Your task to perform on an android device: change keyboard looks Image 0: 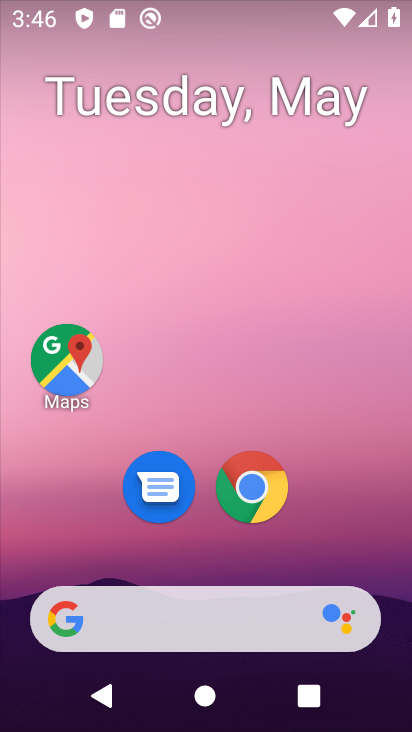
Step 0: drag from (189, 496) to (103, 6)
Your task to perform on an android device: change keyboard looks Image 1: 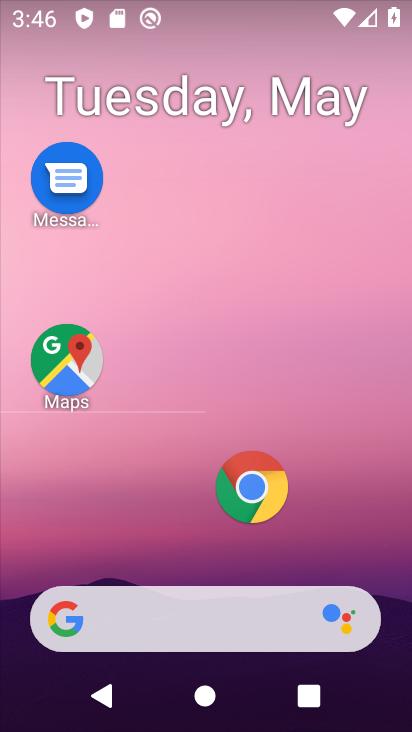
Step 1: drag from (169, 558) to (106, 0)
Your task to perform on an android device: change keyboard looks Image 2: 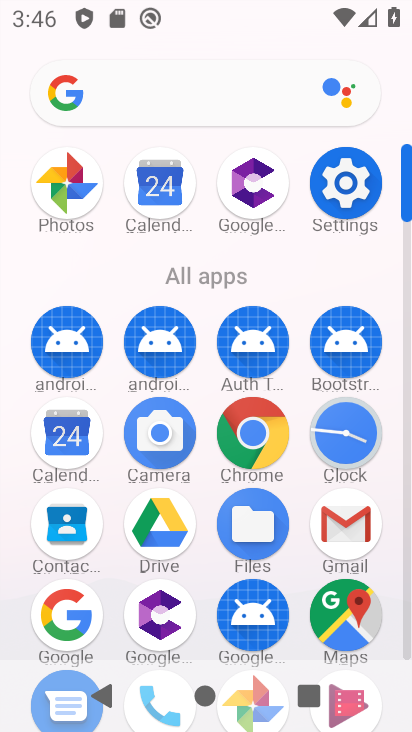
Step 2: click (354, 175)
Your task to perform on an android device: change keyboard looks Image 3: 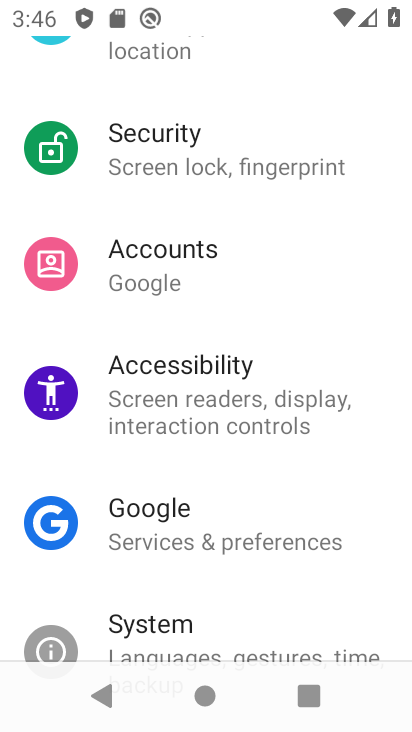
Step 3: drag from (193, 183) to (160, 714)
Your task to perform on an android device: change keyboard looks Image 4: 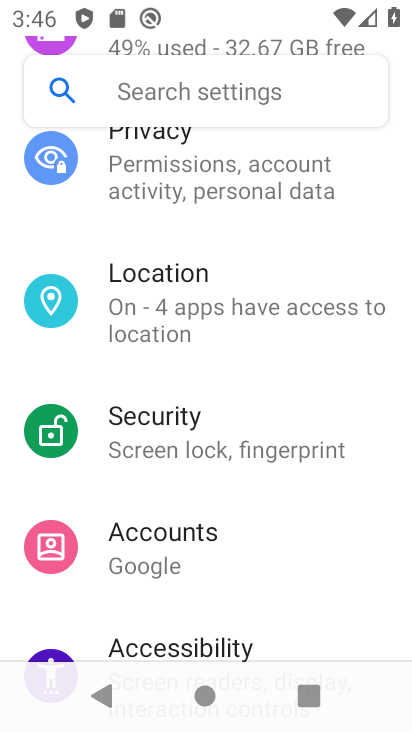
Step 4: drag from (201, 208) to (157, 687)
Your task to perform on an android device: change keyboard looks Image 5: 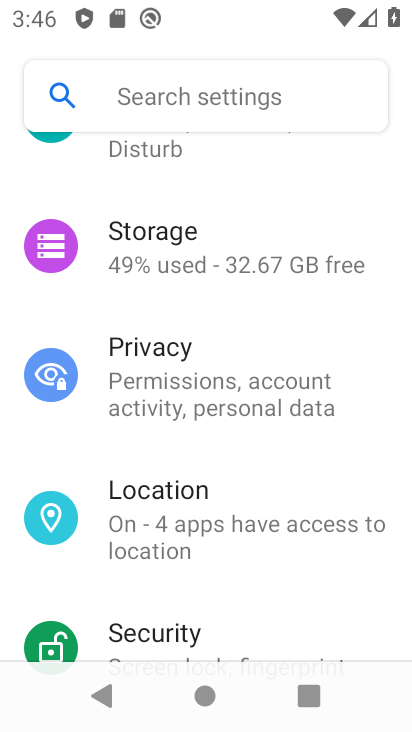
Step 5: click (216, 702)
Your task to perform on an android device: change keyboard looks Image 6: 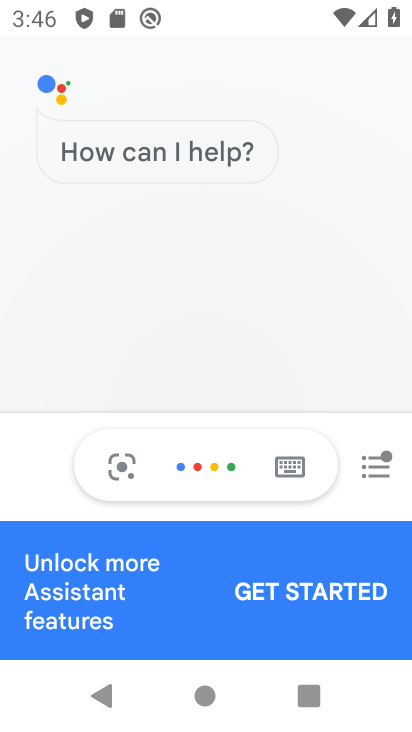
Step 6: press home button
Your task to perform on an android device: change keyboard looks Image 7: 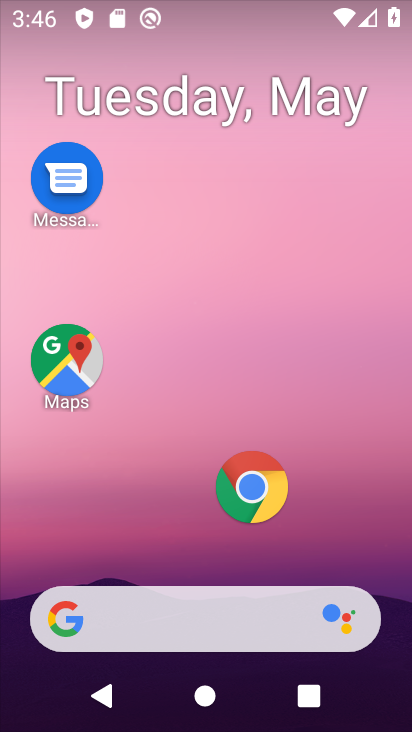
Step 7: drag from (281, 425) to (218, 115)
Your task to perform on an android device: change keyboard looks Image 8: 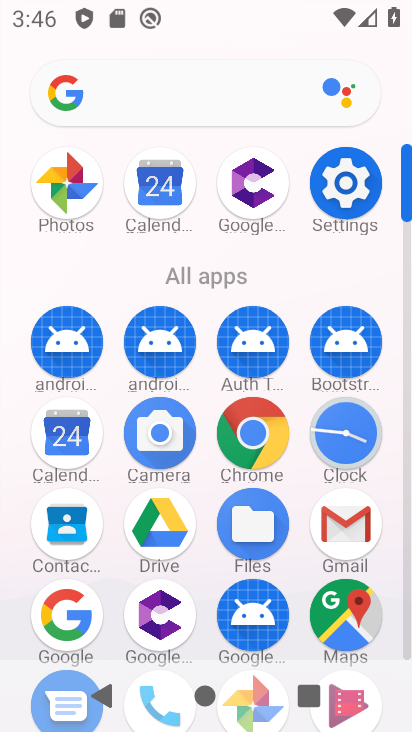
Step 8: click (339, 183)
Your task to perform on an android device: change keyboard looks Image 9: 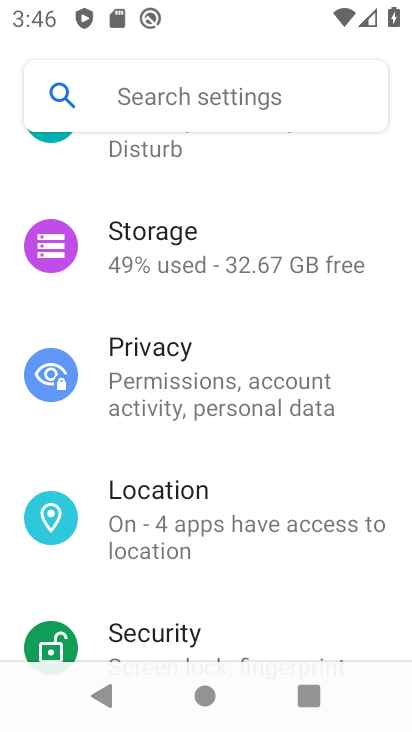
Step 9: drag from (216, 598) to (235, 215)
Your task to perform on an android device: change keyboard looks Image 10: 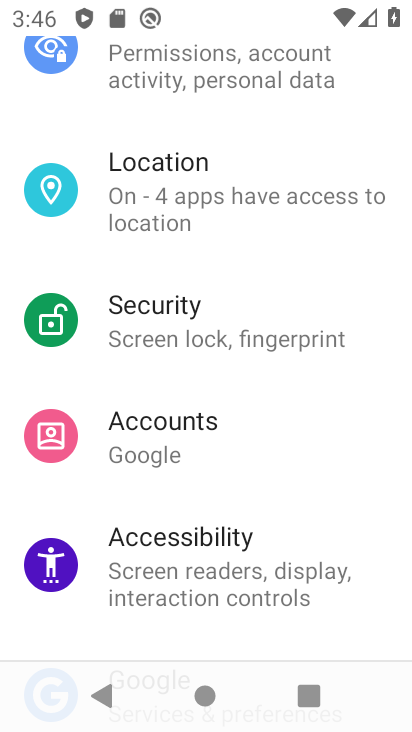
Step 10: click (238, 295)
Your task to perform on an android device: change keyboard looks Image 11: 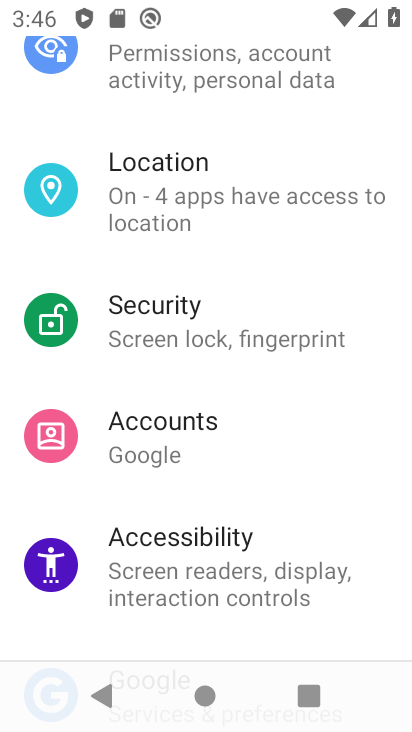
Step 11: drag from (176, 452) to (176, 240)
Your task to perform on an android device: change keyboard looks Image 12: 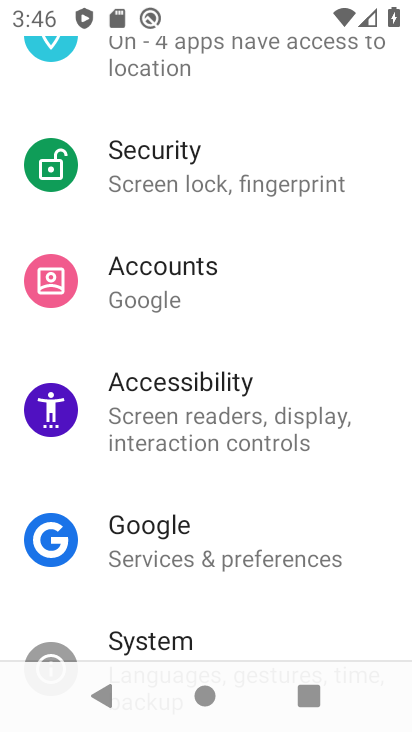
Step 12: drag from (176, 559) to (163, 233)
Your task to perform on an android device: change keyboard looks Image 13: 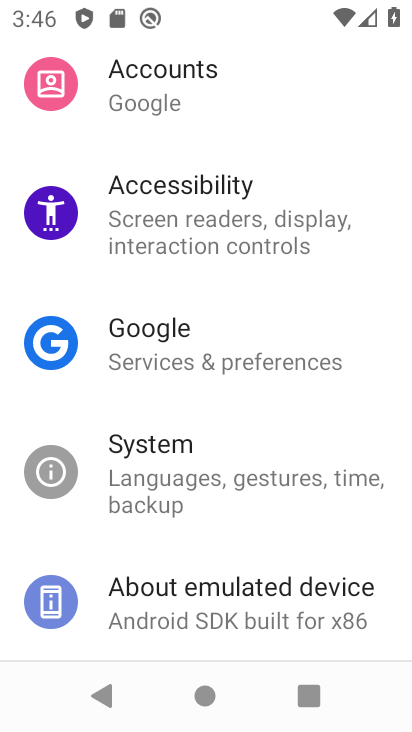
Step 13: click (145, 454)
Your task to perform on an android device: change keyboard looks Image 14: 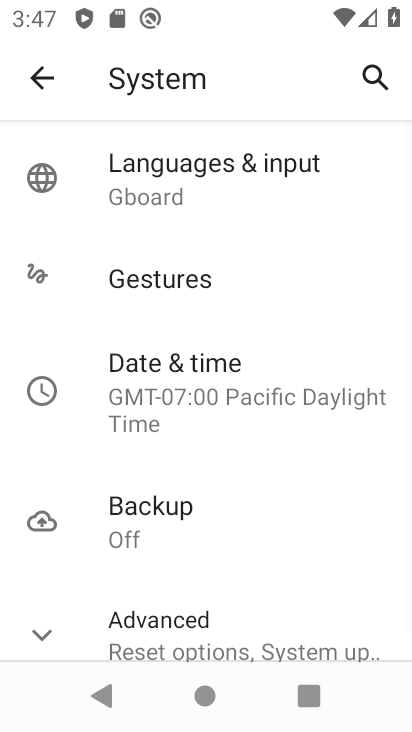
Step 14: click (193, 149)
Your task to perform on an android device: change keyboard looks Image 15: 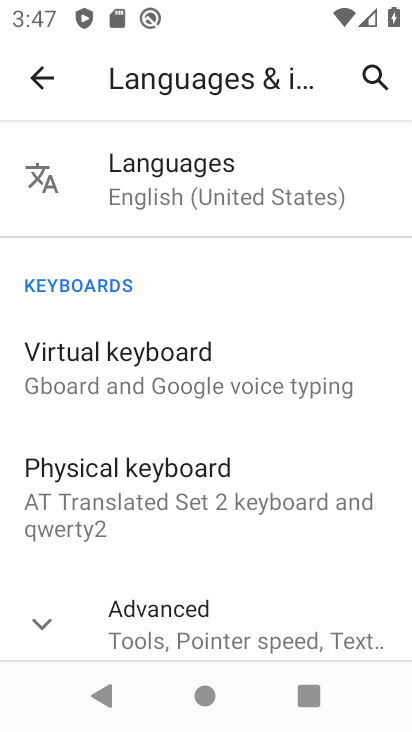
Step 15: click (106, 378)
Your task to perform on an android device: change keyboard looks Image 16: 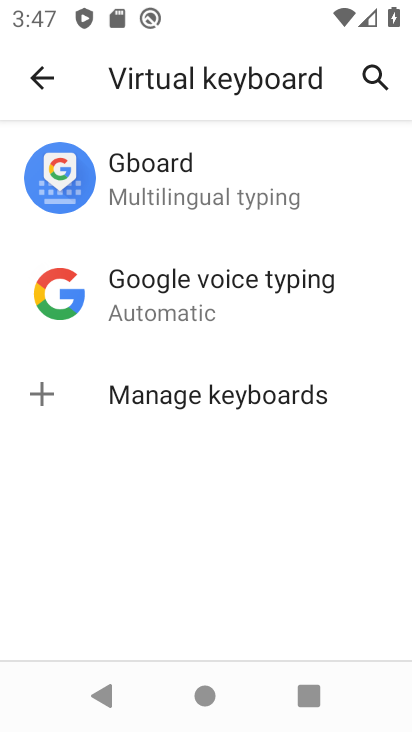
Step 16: click (126, 195)
Your task to perform on an android device: change keyboard looks Image 17: 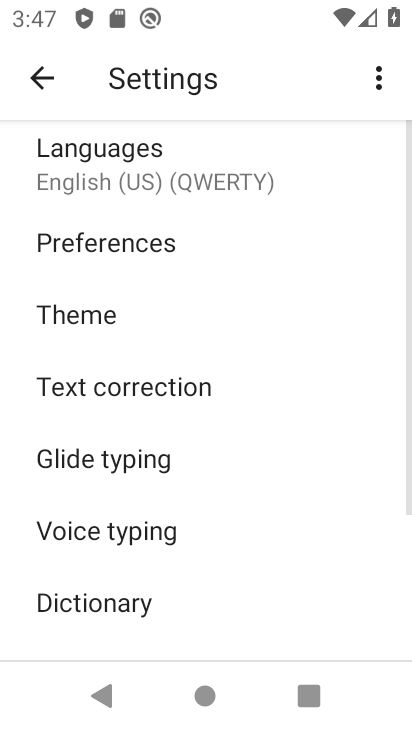
Step 17: click (119, 324)
Your task to perform on an android device: change keyboard looks Image 18: 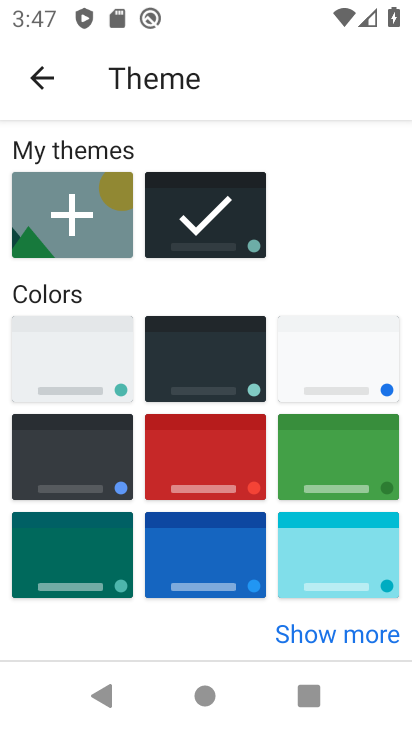
Step 18: click (203, 367)
Your task to perform on an android device: change keyboard looks Image 19: 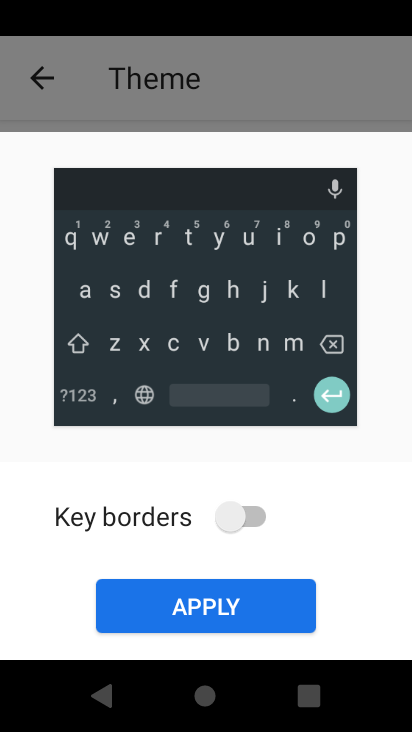
Step 19: click (164, 604)
Your task to perform on an android device: change keyboard looks Image 20: 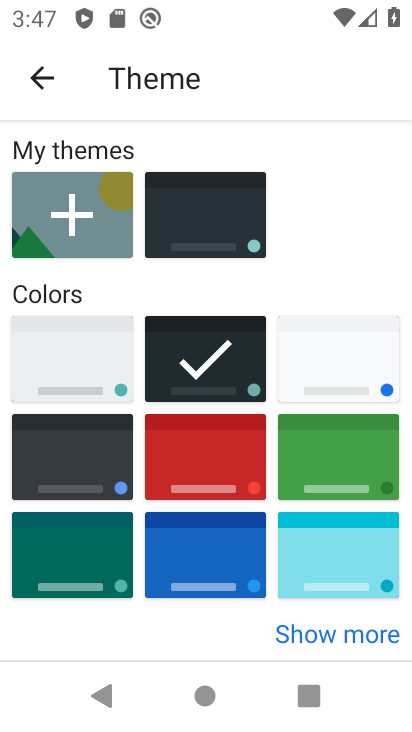
Step 20: task complete